Your task to perform on an android device: Go to settings Image 0: 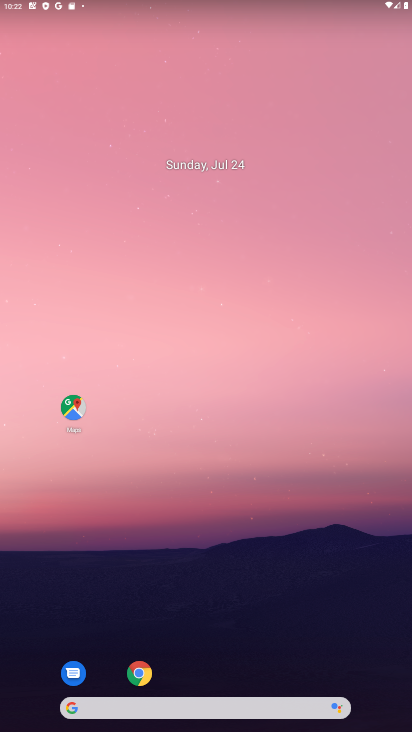
Step 0: drag from (55, 598) to (226, 146)
Your task to perform on an android device: Go to settings Image 1: 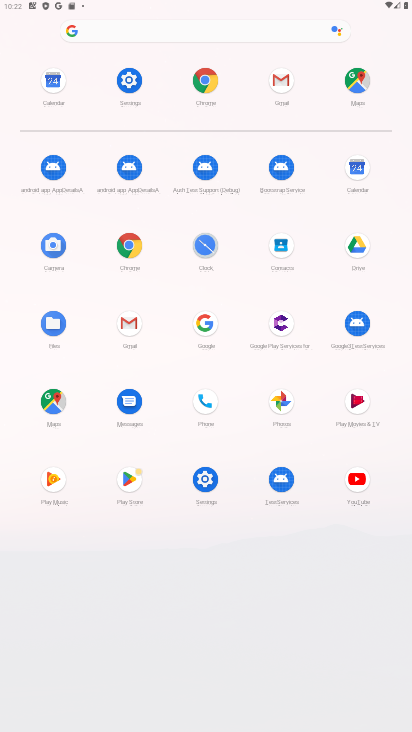
Step 1: click (201, 484)
Your task to perform on an android device: Go to settings Image 2: 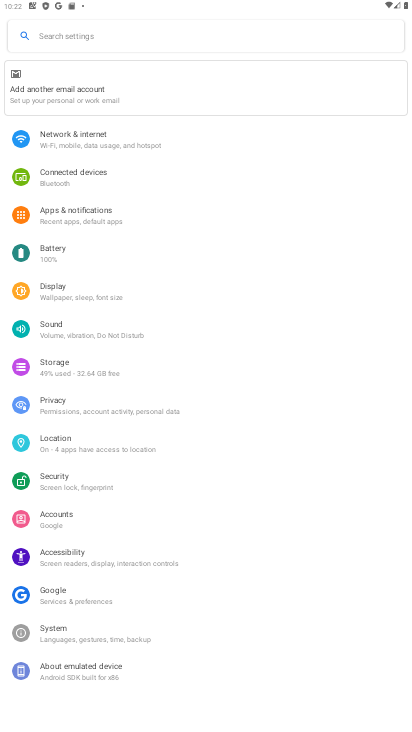
Step 2: task complete